Your task to perform on an android device: Open Youtube and go to "Your channel" Image 0: 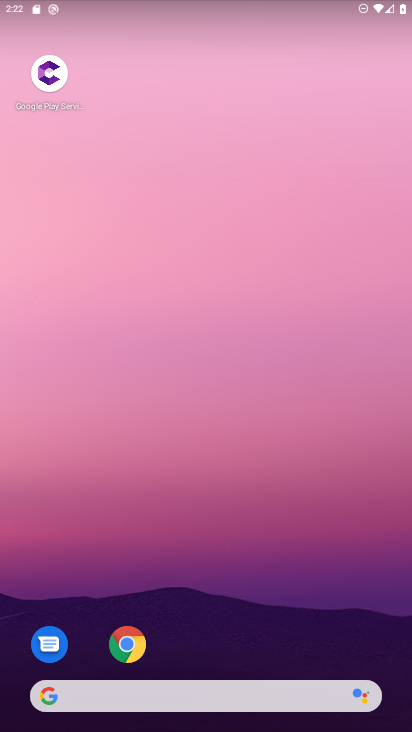
Step 0: drag from (213, 634) to (230, 373)
Your task to perform on an android device: Open Youtube and go to "Your channel" Image 1: 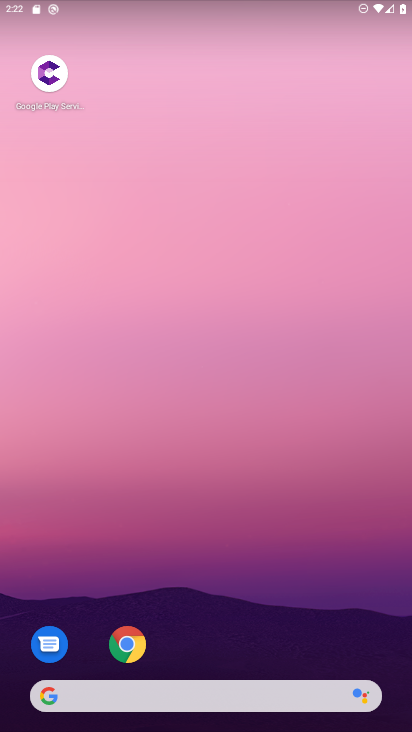
Step 1: drag from (199, 646) to (261, 48)
Your task to perform on an android device: Open Youtube and go to "Your channel" Image 2: 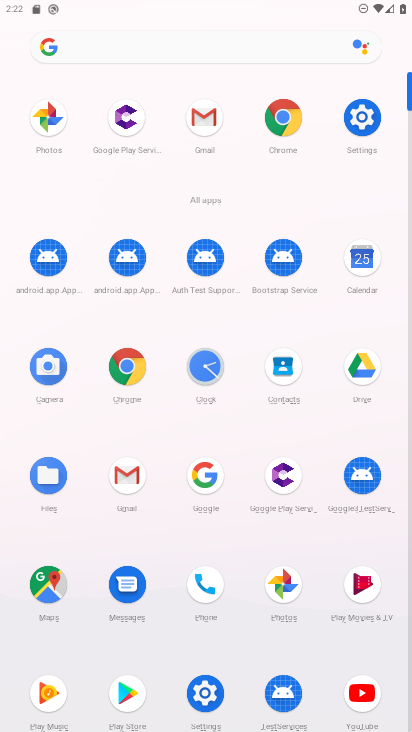
Step 2: click (356, 693)
Your task to perform on an android device: Open Youtube and go to "Your channel" Image 3: 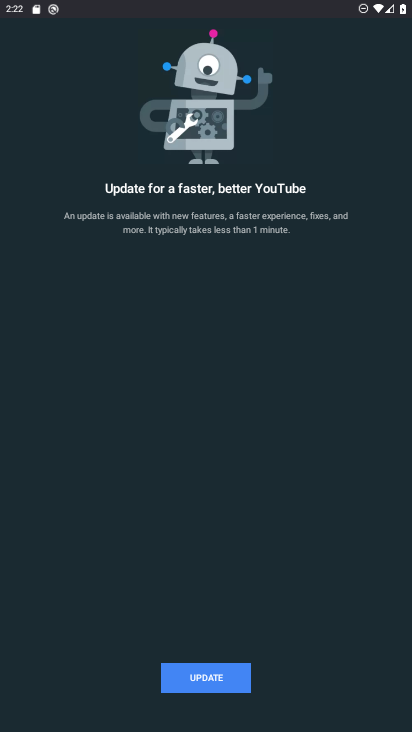
Step 3: click (229, 691)
Your task to perform on an android device: Open Youtube and go to "Your channel" Image 4: 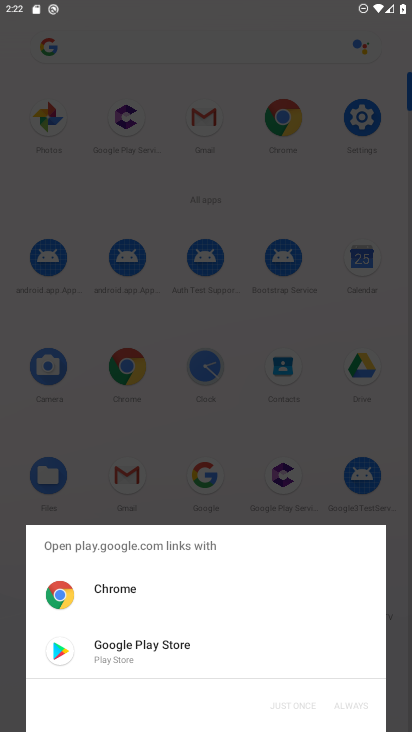
Step 4: click (291, 658)
Your task to perform on an android device: Open Youtube and go to "Your channel" Image 5: 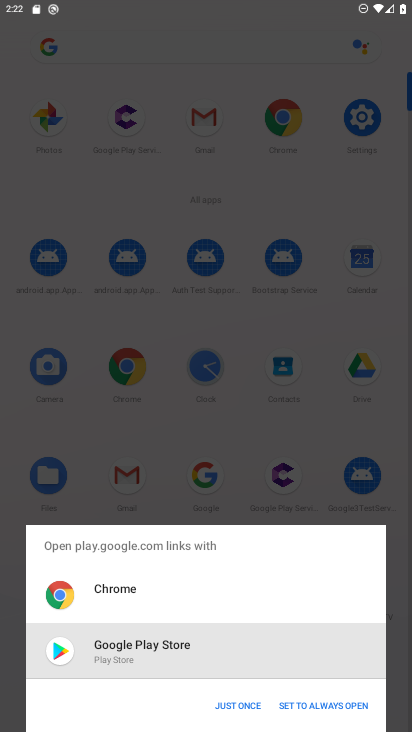
Step 5: click (247, 716)
Your task to perform on an android device: Open Youtube and go to "Your channel" Image 6: 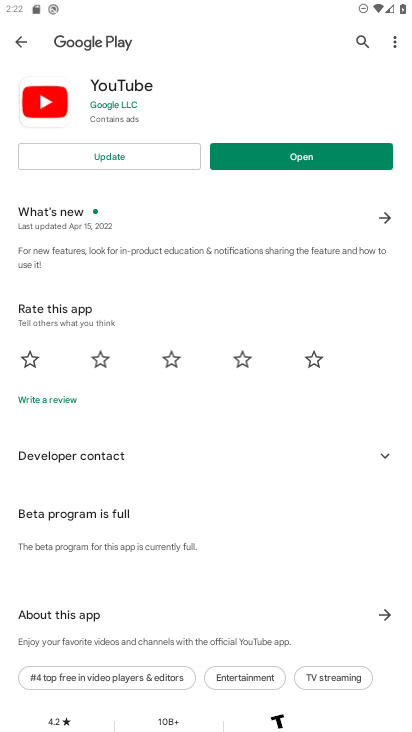
Step 6: click (103, 151)
Your task to perform on an android device: Open Youtube and go to "Your channel" Image 7: 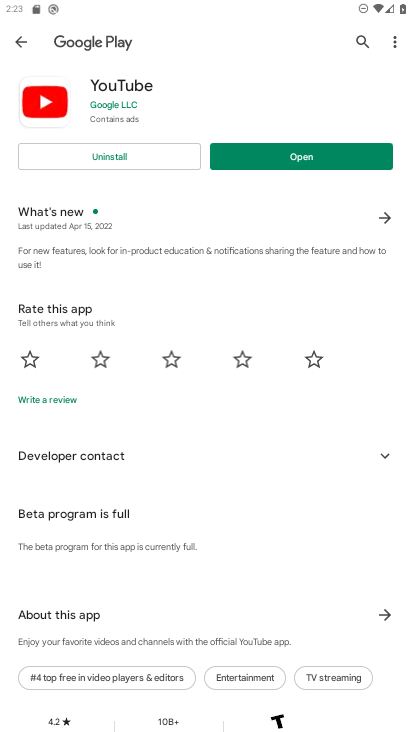
Step 7: click (299, 159)
Your task to perform on an android device: Open Youtube and go to "Your channel" Image 8: 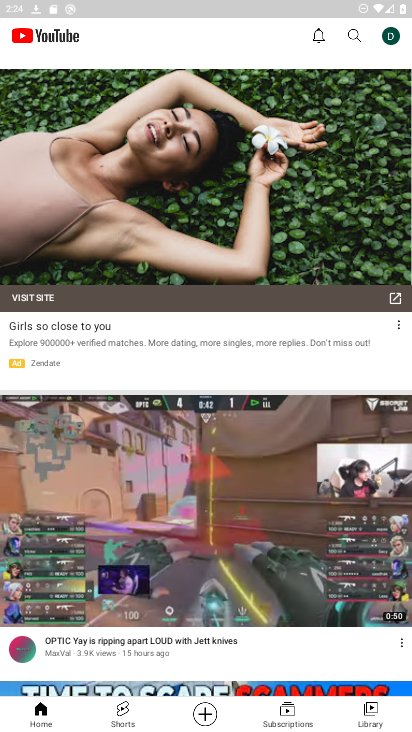
Step 8: click (386, 38)
Your task to perform on an android device: Open Youtube and go to "Your channel" Image 9: 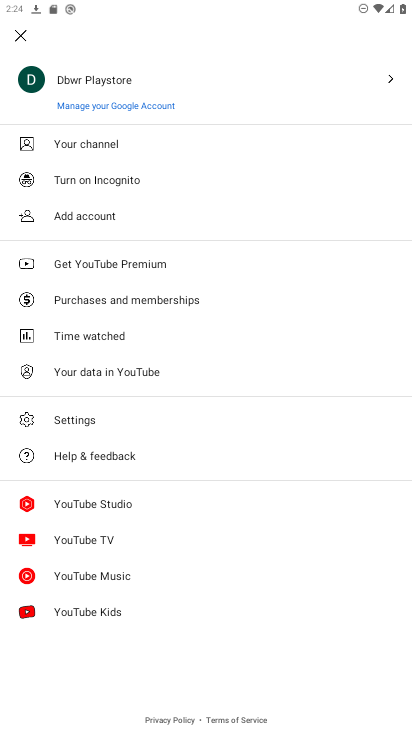
Step 9: click (209, 156)
Your task to perform on an android device: Open Youtube and go to "Your channel" Image 10: 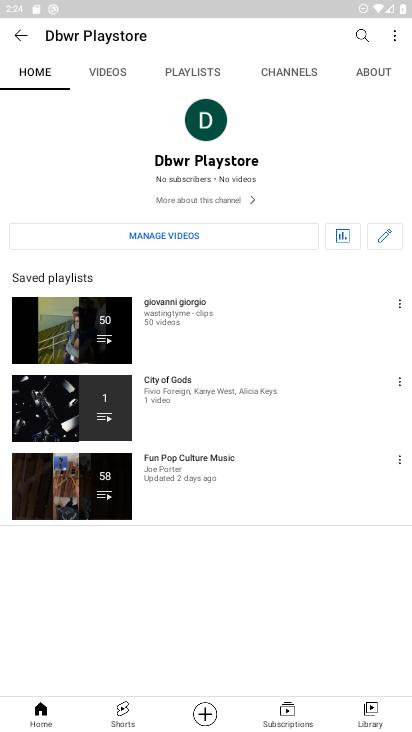
Step 10: task complete